Your task to perform on an android device: Show me recent news Image 0: 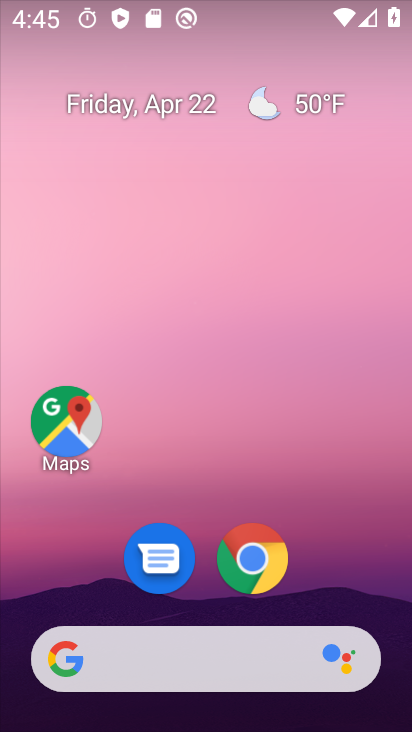
Step 0: drag from (305, 578) to (244, 185)
Your task to perform on an android device: Show me recent news Image 1: 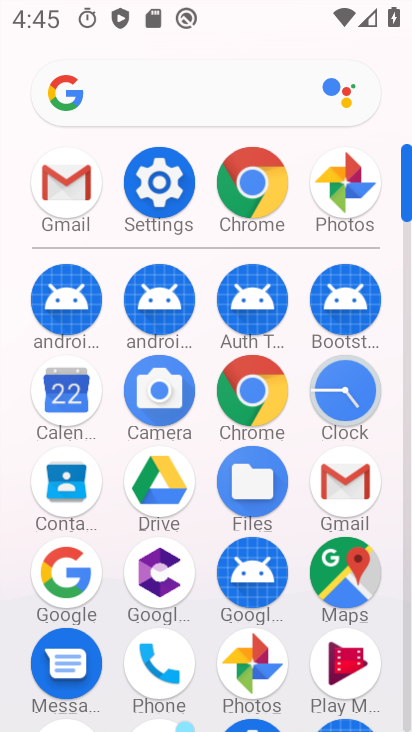
Step 1: drag from (206, 606) to (220, 312)
Your task to perform on an android device: Show me recent news Image 2: 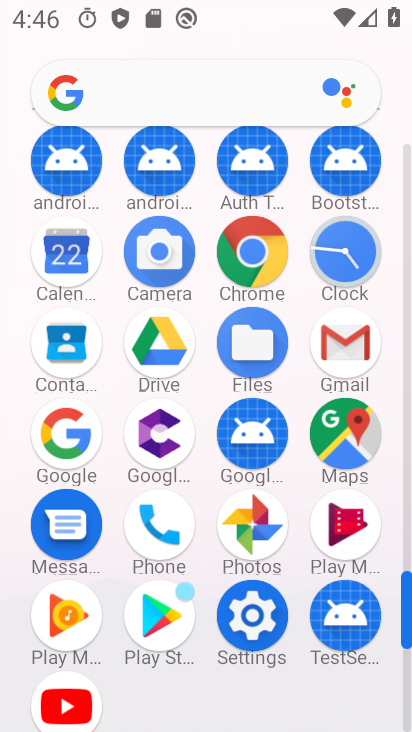
Step 2: click (84, 431)
Your task to perform on an android device: Show me recent news Image 3: 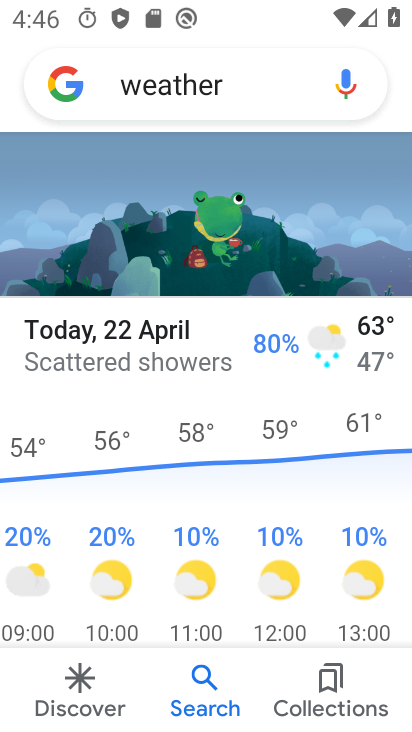
Step 3: click (235, 89)
Your task to perform on an android device: Show me recent news Image 4: 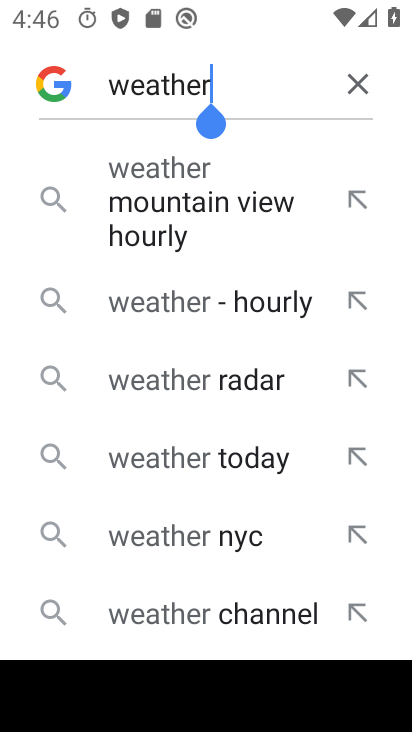
Step 4: click (369, 86)
Your task to perform on an android device: Show me recent news Image 5: 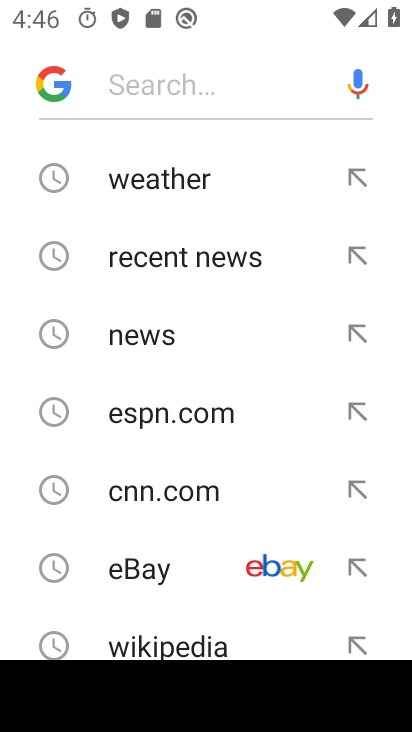
Step 5: click (163, 331)
Your task to perform on an android device: Show me recent news Image 6: 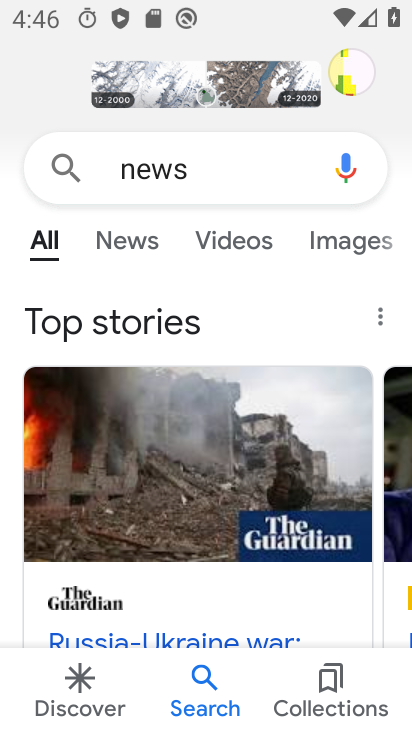
Step 6: task complete